Your task to perform on an android device: move a message to another label in the gmail app Image 0: 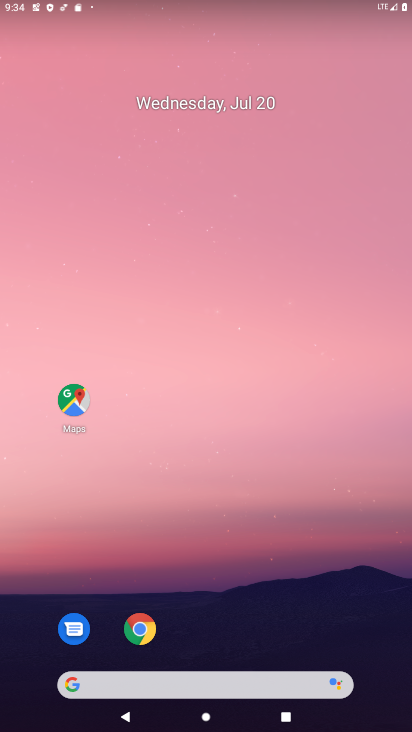
Step 0: drag from (282, 649) to (315, 42)
Your task to perform on an android device: move a message to another label in the gmail app Image 1: 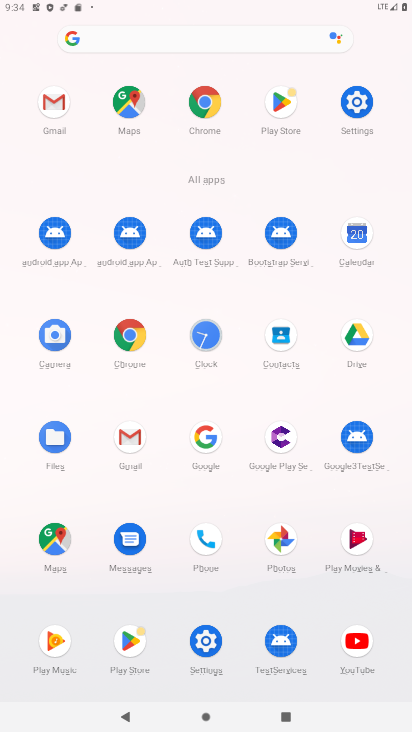
Step 1: click (149, 446)
Your task to perform on an android device: move a message to another label in the gmail app Image 2: 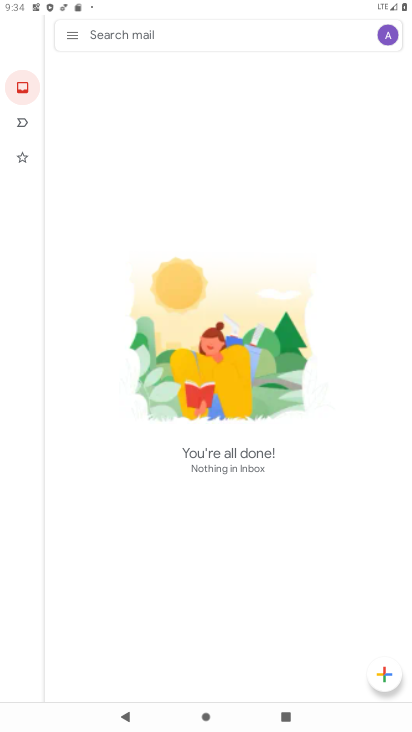
Step 2: task complete